Your task to perform on an android device: What's on my calendar today? Image 0: 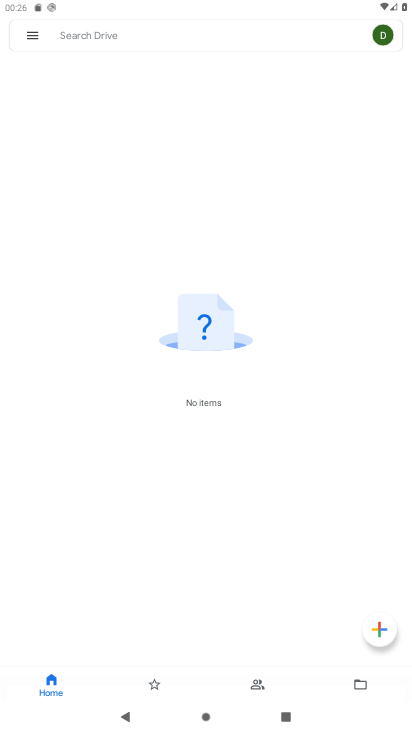
Step 0: press home button
Your task to perform on an android device: What's on my calendar today? Image 1: 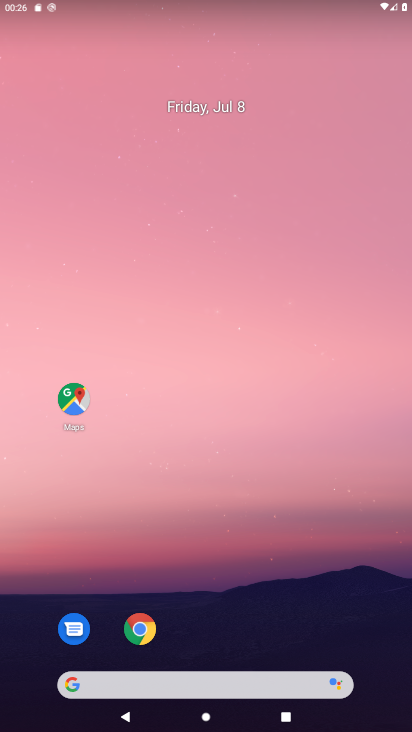
Step 1: drag from (212, 629) to (212, 390)
Your task to perform on an android device: What's on my calendar today? Image 2: 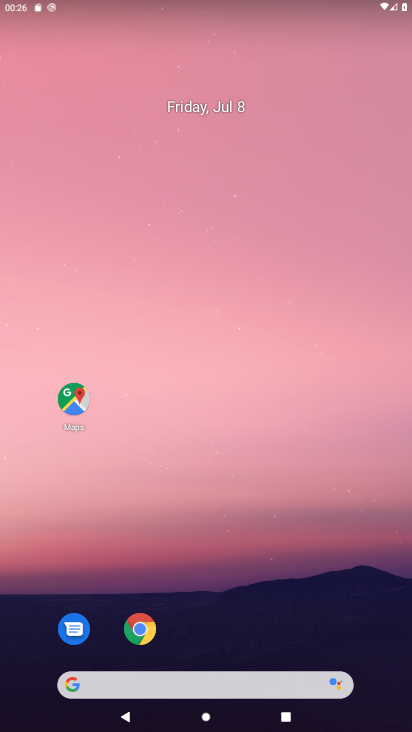
Step 2: drag from (224, 641) to (222, 135)
Your task to perform on an android device: What's on my calendar today? Image 3: 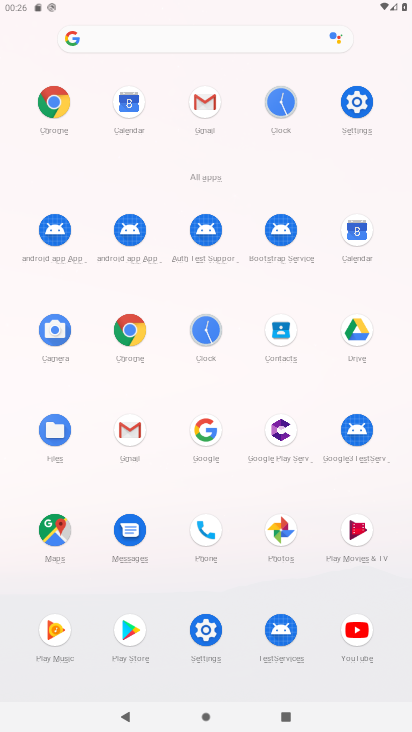
Step 3: click (126, 111)
Your task to perform on an android device: What's on my calendar today? Image 4: 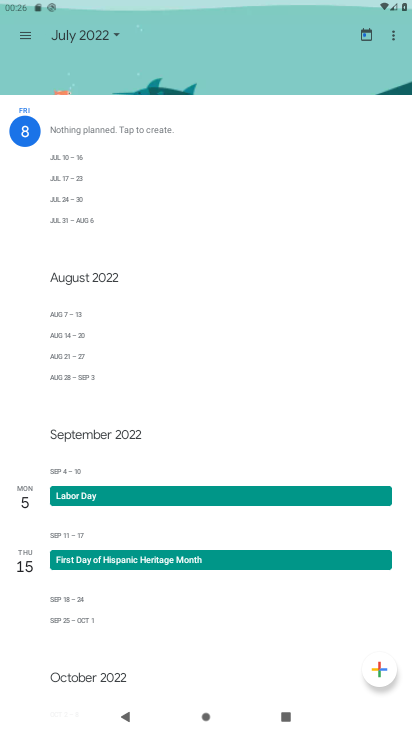
Step 4: click (98, 31)
Your task to perform on an android device: What's on my calendar today? Image 5: 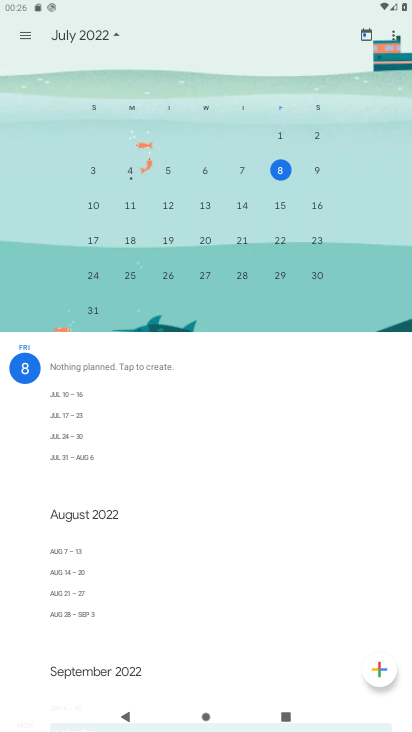
Step 5: click (284, 163)
Your task to perform on an android device: What's on my calendar today? Image 6: 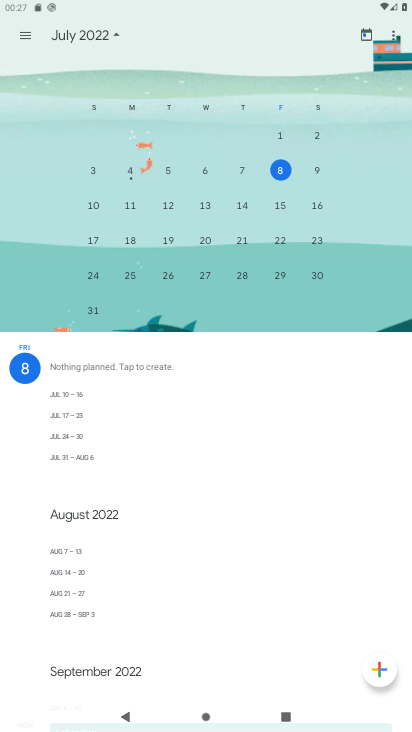
Step 6: task complete